Your task to perform on an android device: Go to sound settings Image 0: 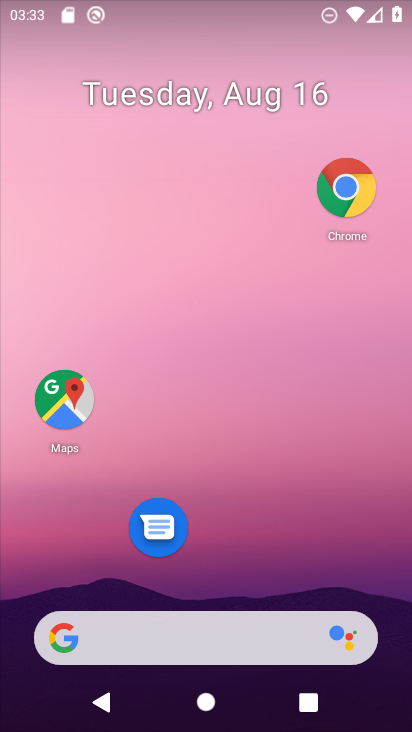
Step 0: press home button
Your task to perform on an android device: Go to sound settings Image 1: 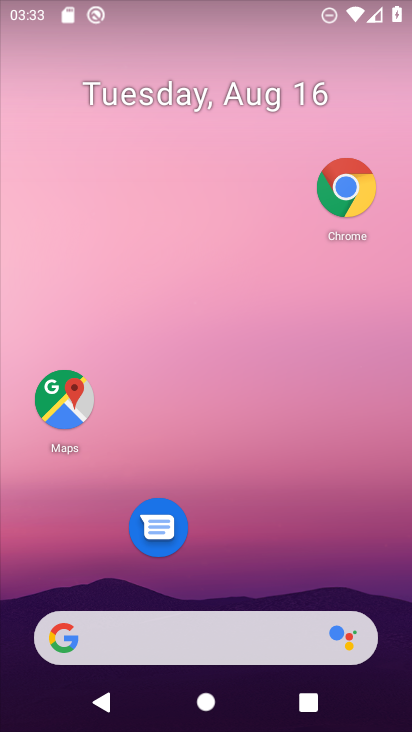
Step 1: drag from (230, 588) to (284, 11)
Your task to perform on an android device: Go to sound settings Image 2: 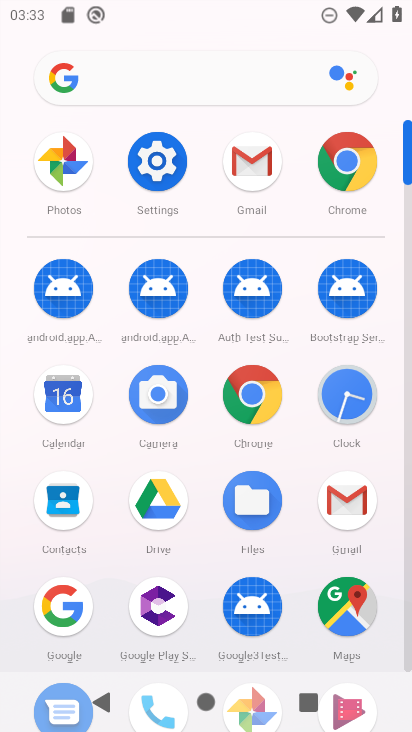
Step 2: click (153, 151)
Your task to perform on an android device: Go to sound settings Image 3: 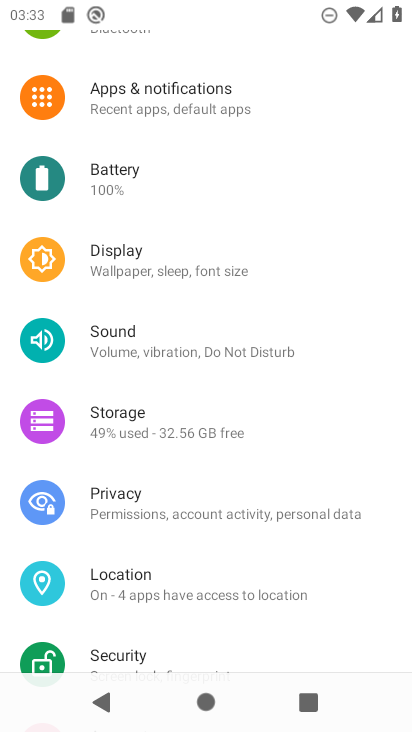
Step 3: click (148, 330)
Your task to perform on an android device: Go to sound settings Image 4: 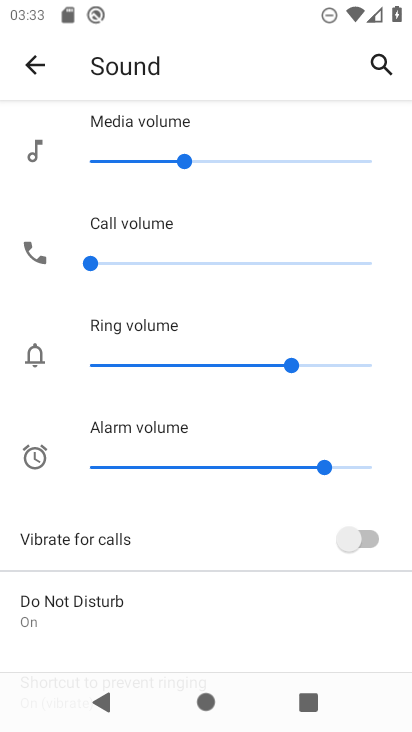
Step 4: drag from (184, 592) to (207, 94)
Your task to perform on an android device: Go to sound settings Image 5: 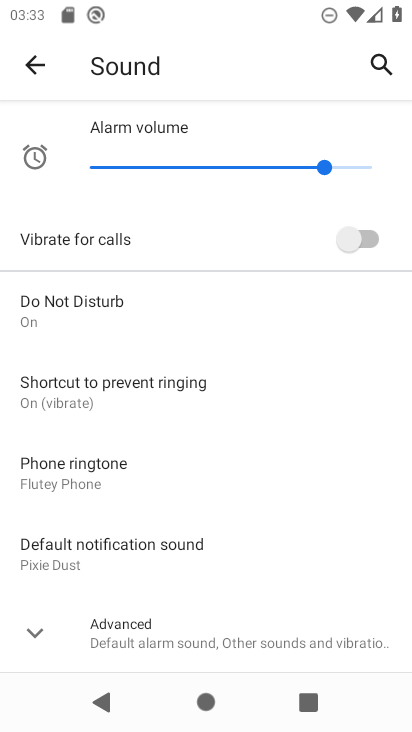
Step 5: click (25, 629)
Your task to perform on an android device: Go to sound settings Image 6: 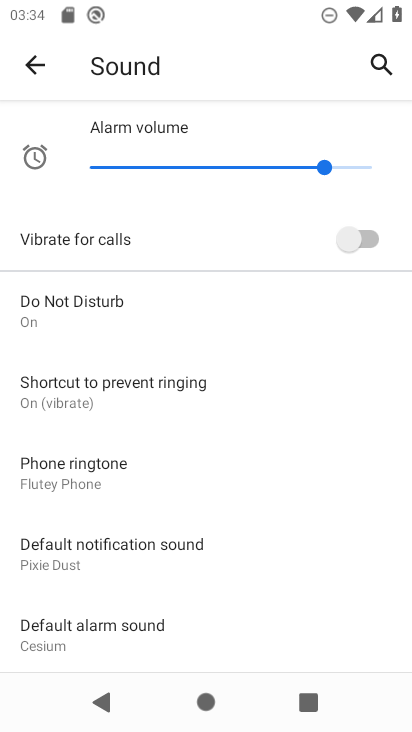
Step 6: task complete